Your task to perform on an android device: toggle location history Image 0: 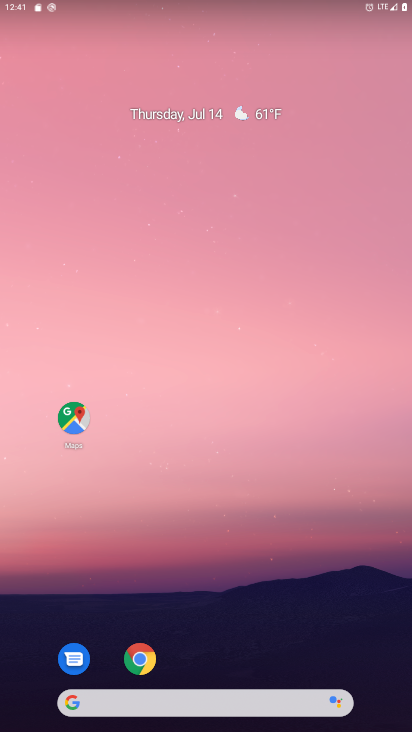
Step 0: press home button
Your task to perform on an android device: toggle location history Image 1: 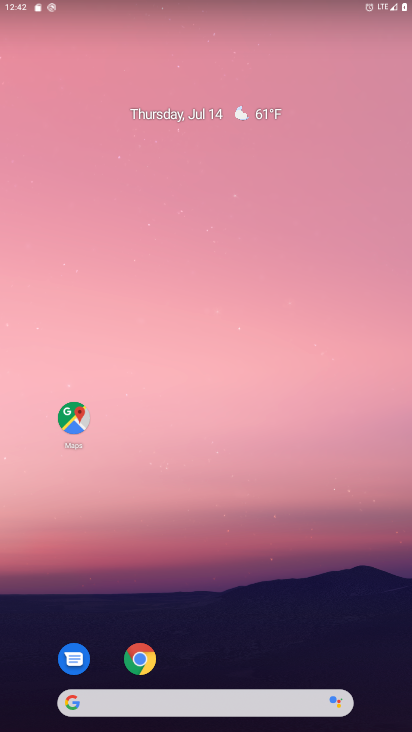
Step 1: drag from (233, 680) to (284, 58)
Your task to perform on an android device: toggle location history Image 2: 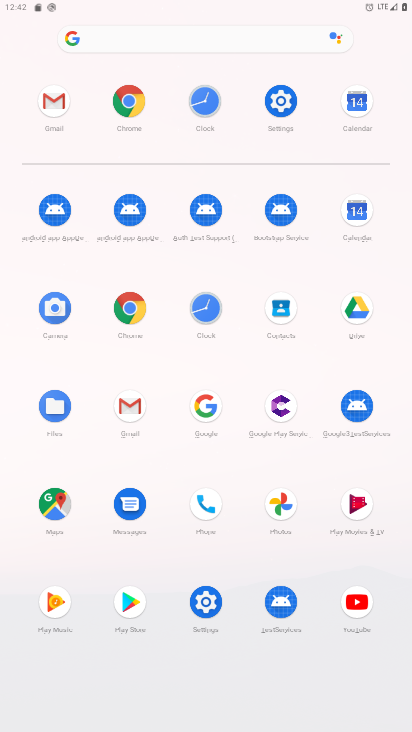
Step 2: click (280, 100)
Your task to perform on an android device: toggle location history Image 3: 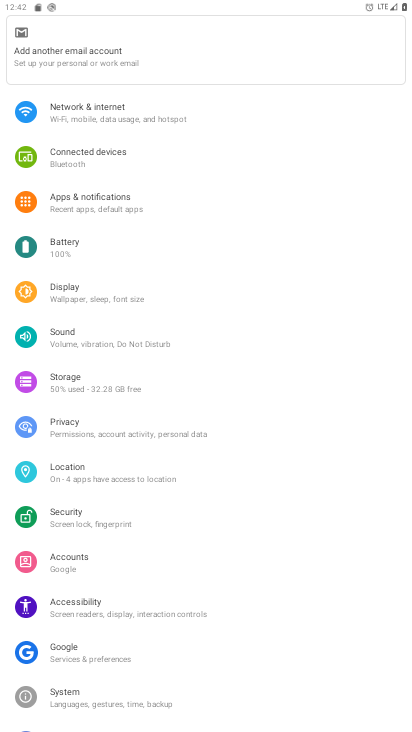
Step 3: click (93, 472)
Your task to perform on an android device: toggle location history Image 4: 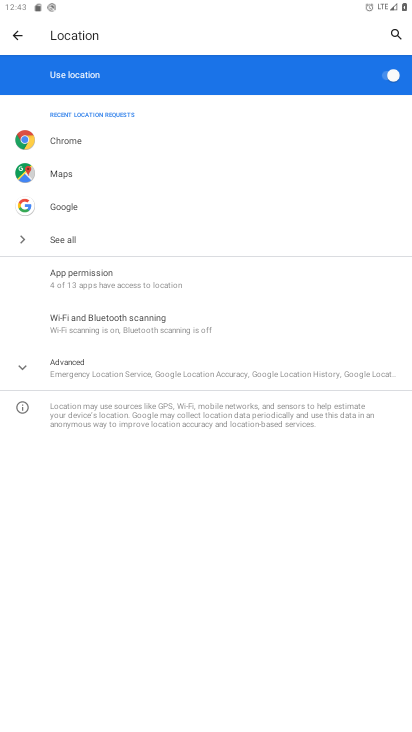
Step 4: click (17, 363)
Your task to perform on an android device: toggle location history Image 5: 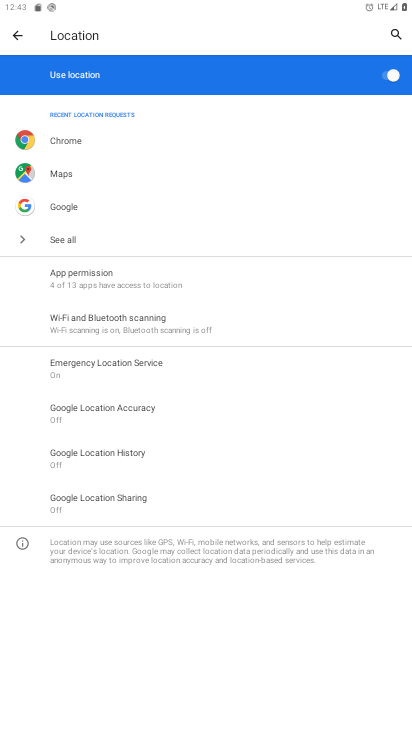
Step 5: click (85, 451)
Your task to perform on an android device: toggle location history Image 6: 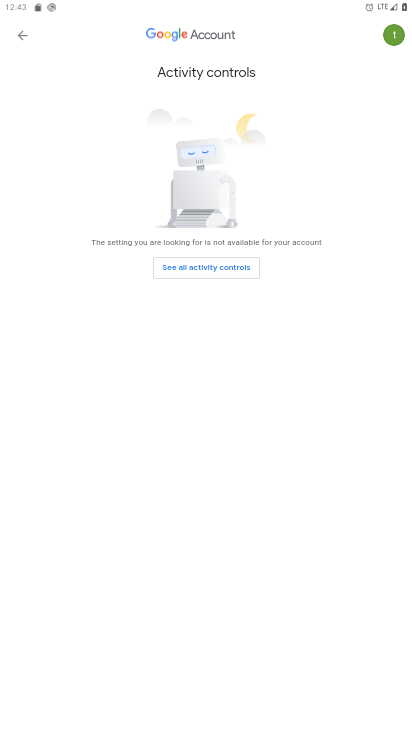
Step 6: click (188, 267)
Your task to perform on an android device: toggle location history Image 7: 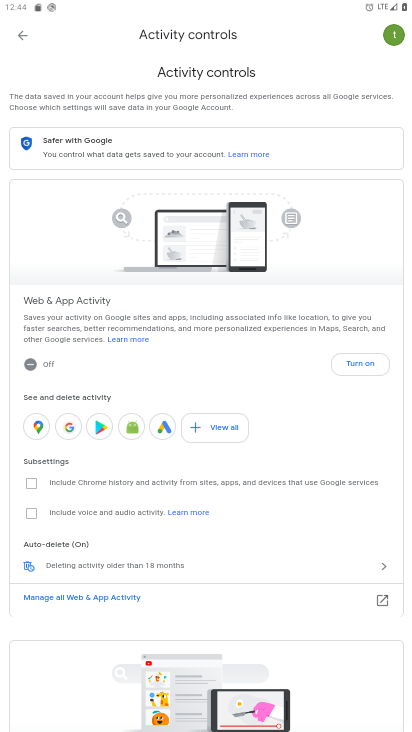
Step 7: task complete